Your task to perform on an android device: Go to calendar. Show me events next week Image 0: 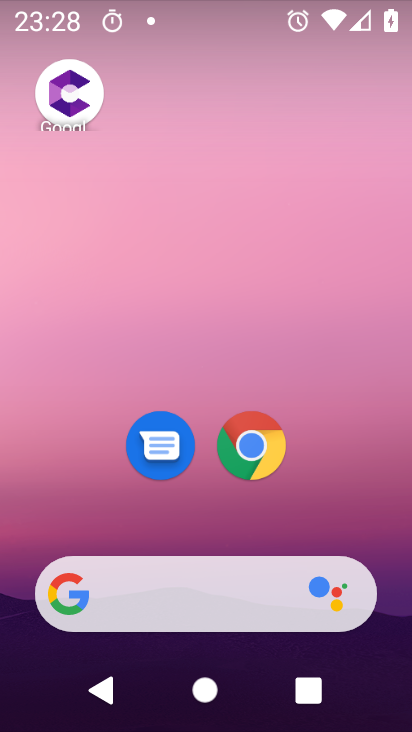
Step 0: drag from (260, 577) to (195, 31)
Your task to perform on an android device: Go to calendar. Show me events next week Image 1: 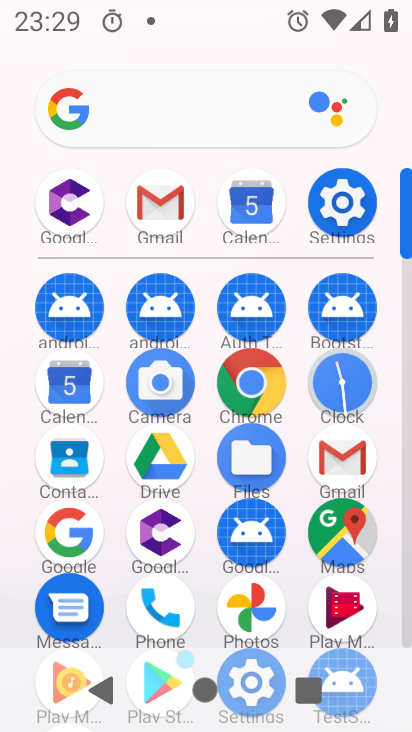
Step 1: click (72, 377)
Your task to perform on an android device: Go to calendar. Show me events next week Image 2: 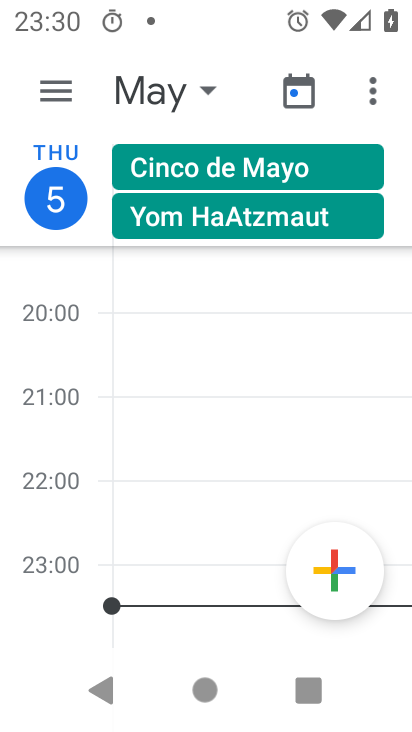
Step 2: click (52, 86)
Your task to perform on an android device: Go to calendar. Show me events next week Image 3: 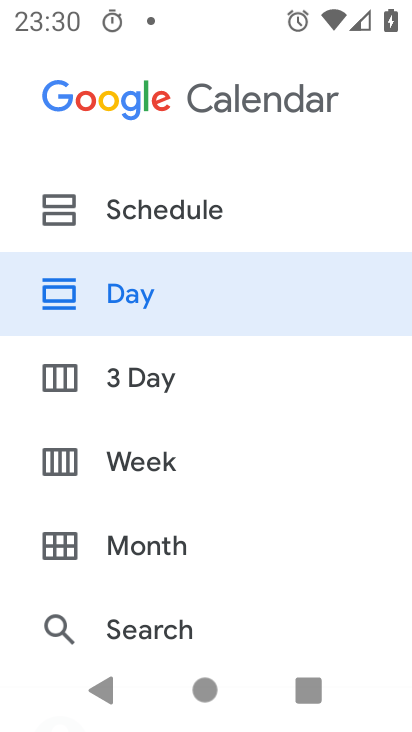
Step 3: click (173, 453)
Your task to perform on an android device: Go to calendar. Show me events next week Image 4: 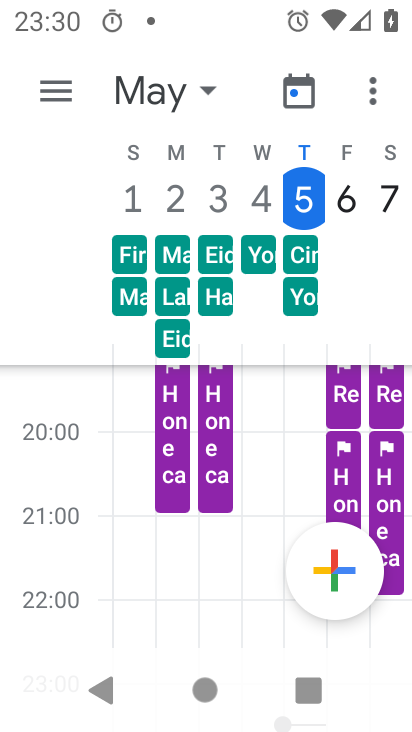
Step 4: task complete